Your task to perform on an android device: toggle location history Image 0: 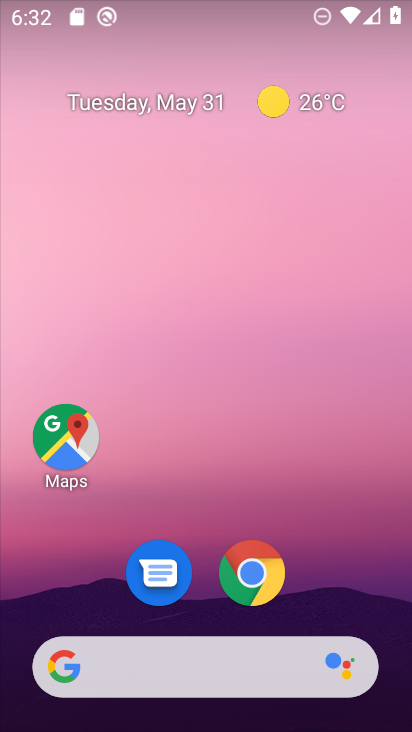
Step 0: drag from (351, 636) to (271, 15)
Your task to perform on an android device: toggle location history Image 1: 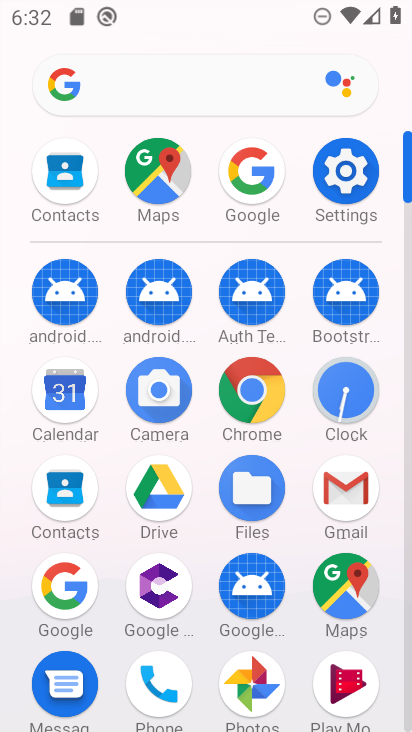
Step 1: click (337, 165)
Your task to perform on an android device: toggle location history Image 2: 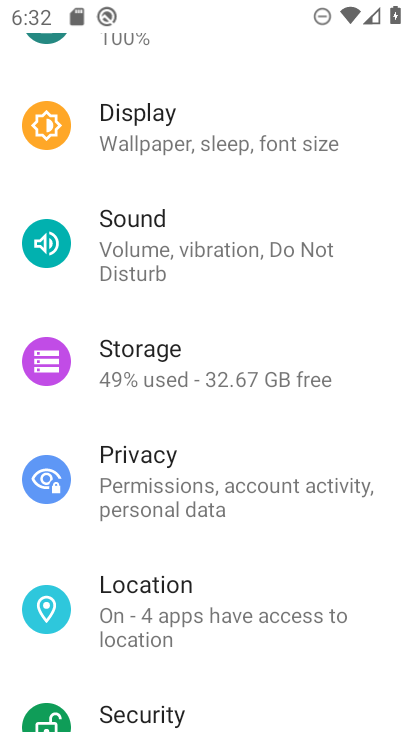
Step 2: click (179, 603)
Your task to perform on an android device: toggle location history Image 3: 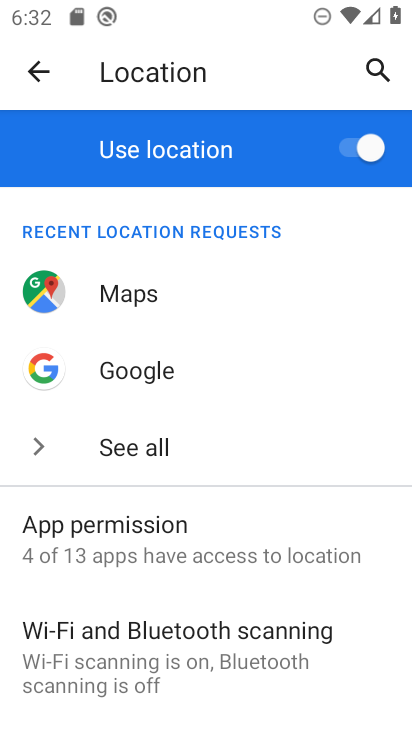
Step 3: drag from (187, 660) to (156, 121)
Your task to perform on an android device: toggle location history Image 4: 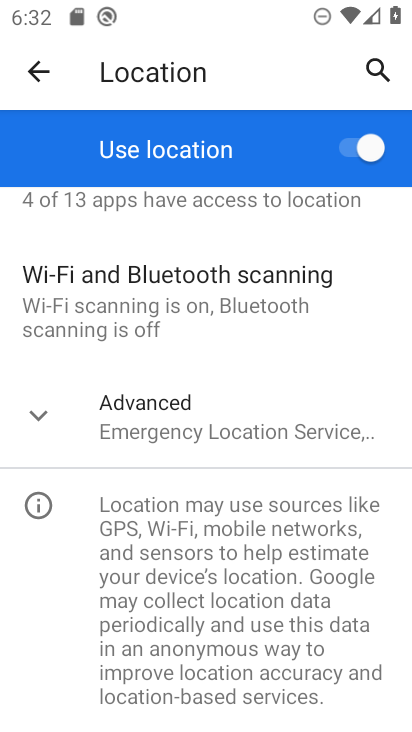
Step 4: click (129, 395)
Your task to perform on an android device: toggle location history Image 5: 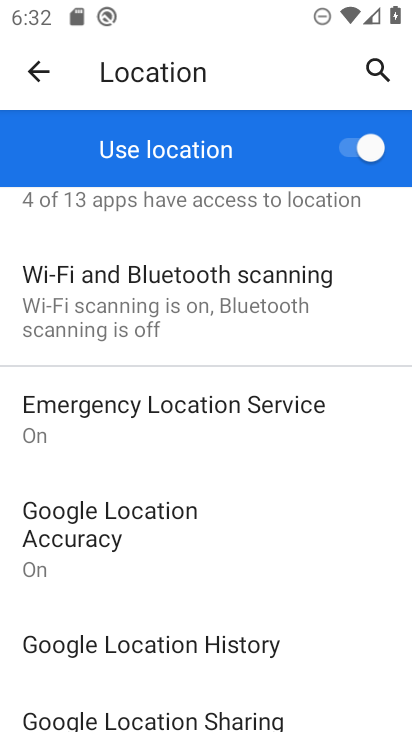
Step 5: click (254, 652)
Your task to perform on an android device: toggle location history Image 6: 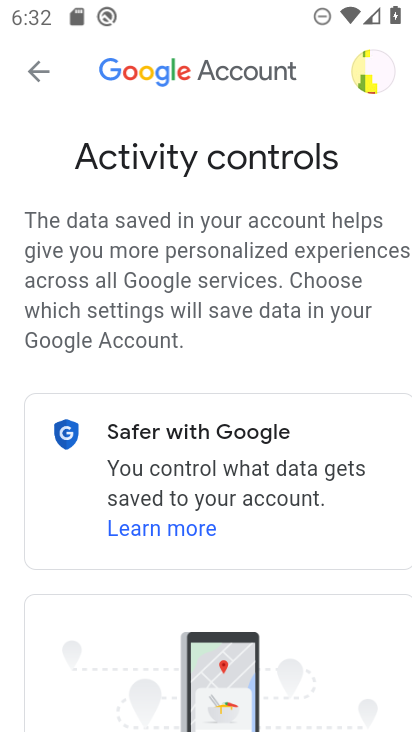
Step 6: drag from (347, 608) to (249, 7)
Your task to perform on an android device: toggle location history Image 7: 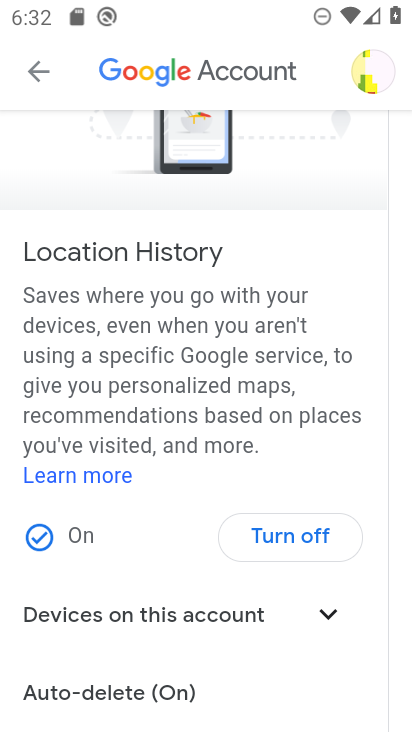
Step 7: click (344, 524)
Your task to perform on an android device: toggle location history Image 8: 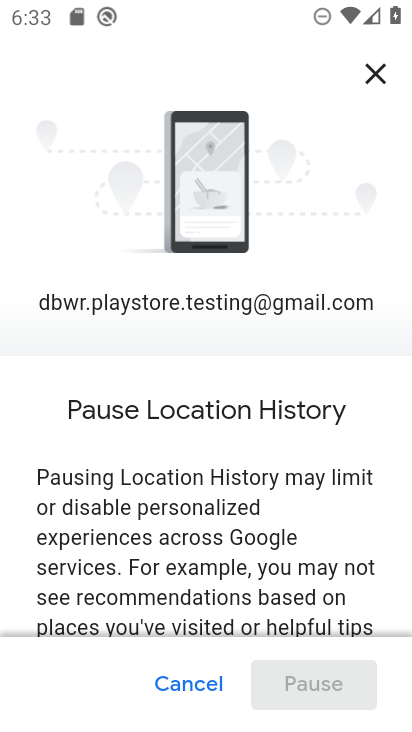
Step 8: task complete